Your task to perform on an android device: Open maps Image 0: 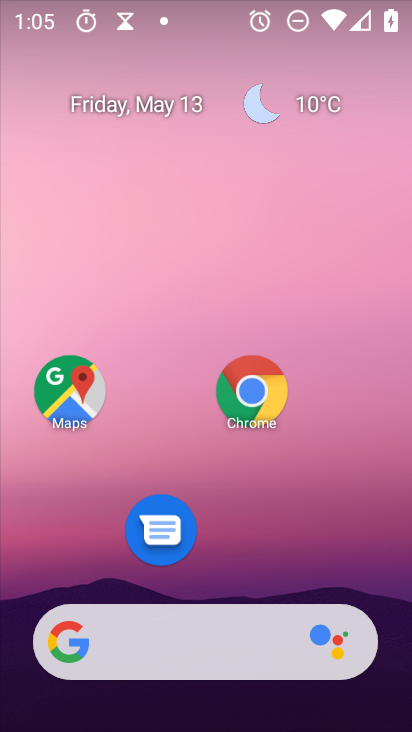
Step 0: press home button
Your task to perform on an android device: Open maps Image 1: 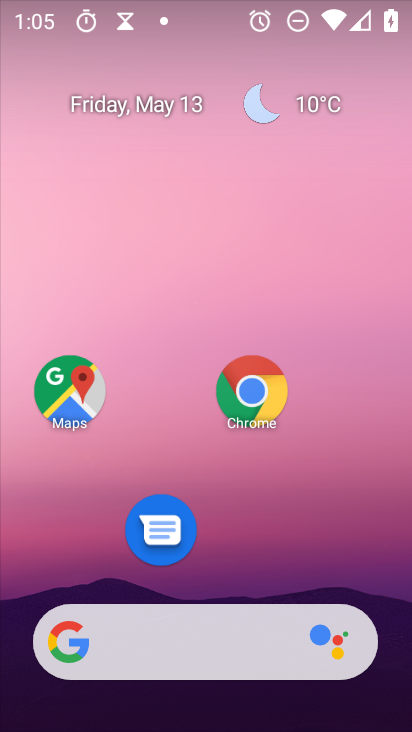
Step 1: click (58, 398)
Your task to perform on an android device: Open maps Image 2: 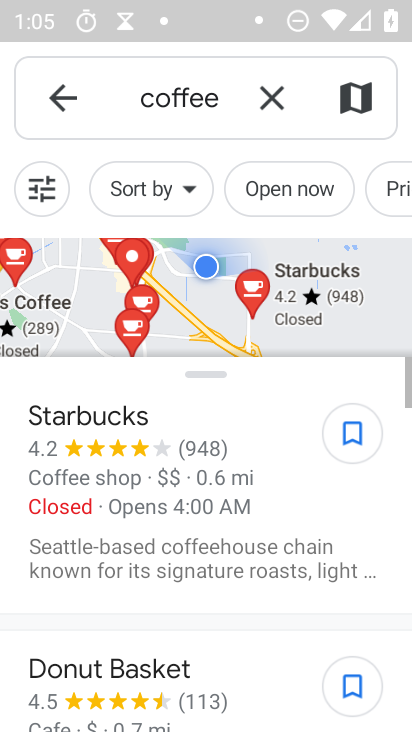
Step 2: click (75, 90)
Your task to perform on an android device: Open maps Image 3: 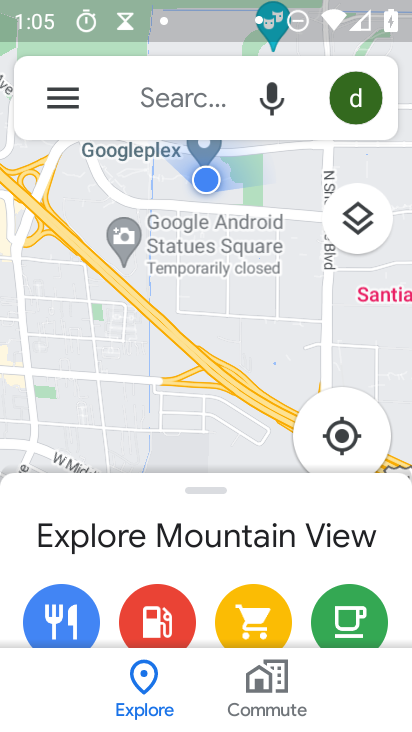
Step 3: task complete